Your task to perform on an android device: toggle airplane mode Image 0: 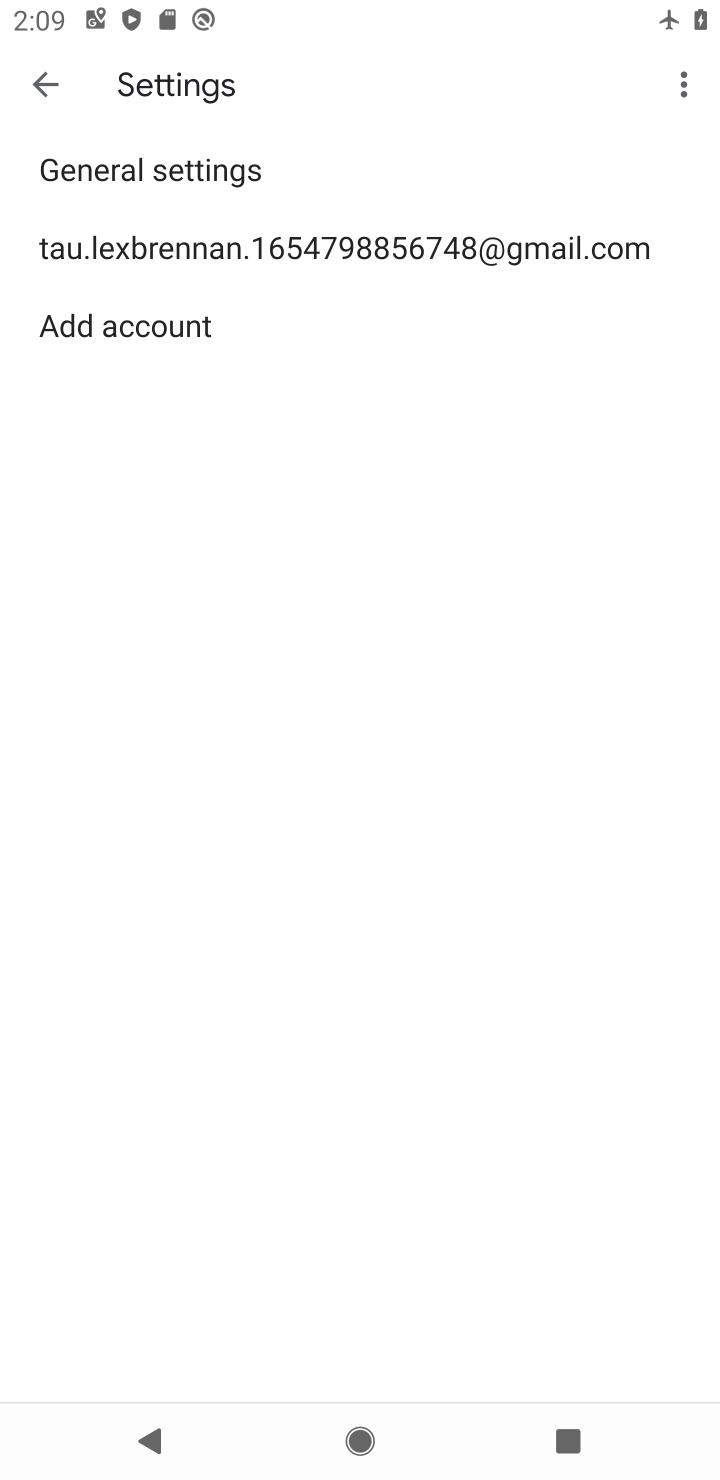
Step 0: press home button
Your task to perform on an android device: toggle airplane mode Image 1: 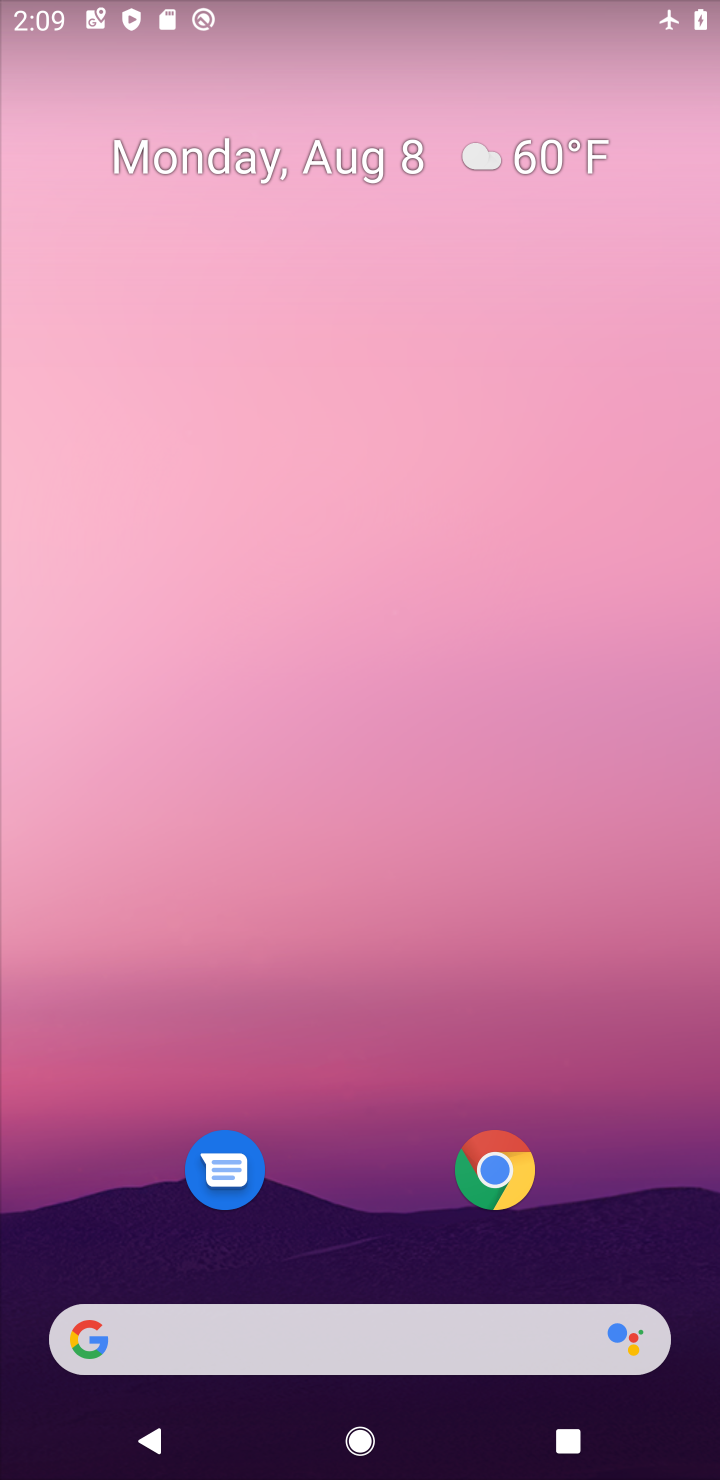
Step 1: click (337, 385)
Your task to perform on an android device: toggle airplane mode Image 2: 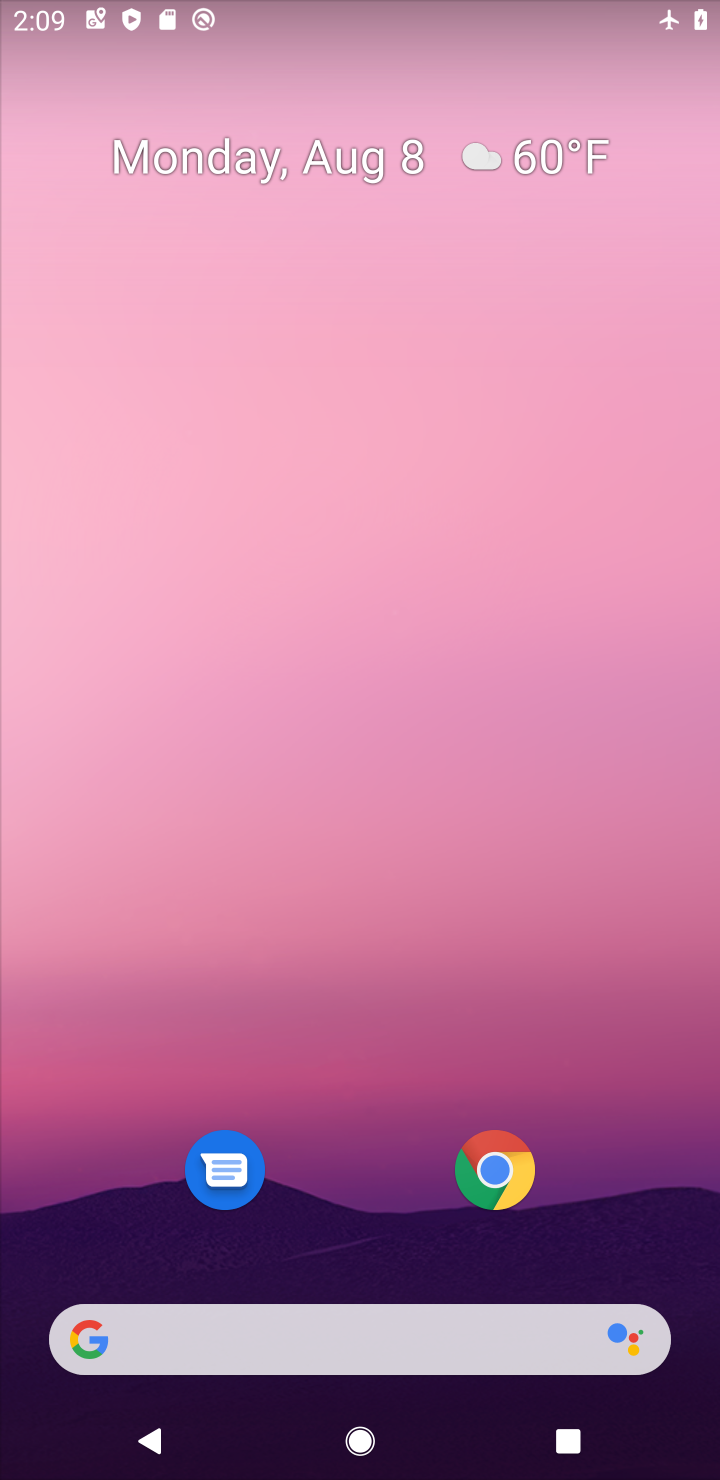
Step 2: drag from (338, 1019) to (388, 116)
Your task to perform on an android device: toggle airplane mode Image 3: 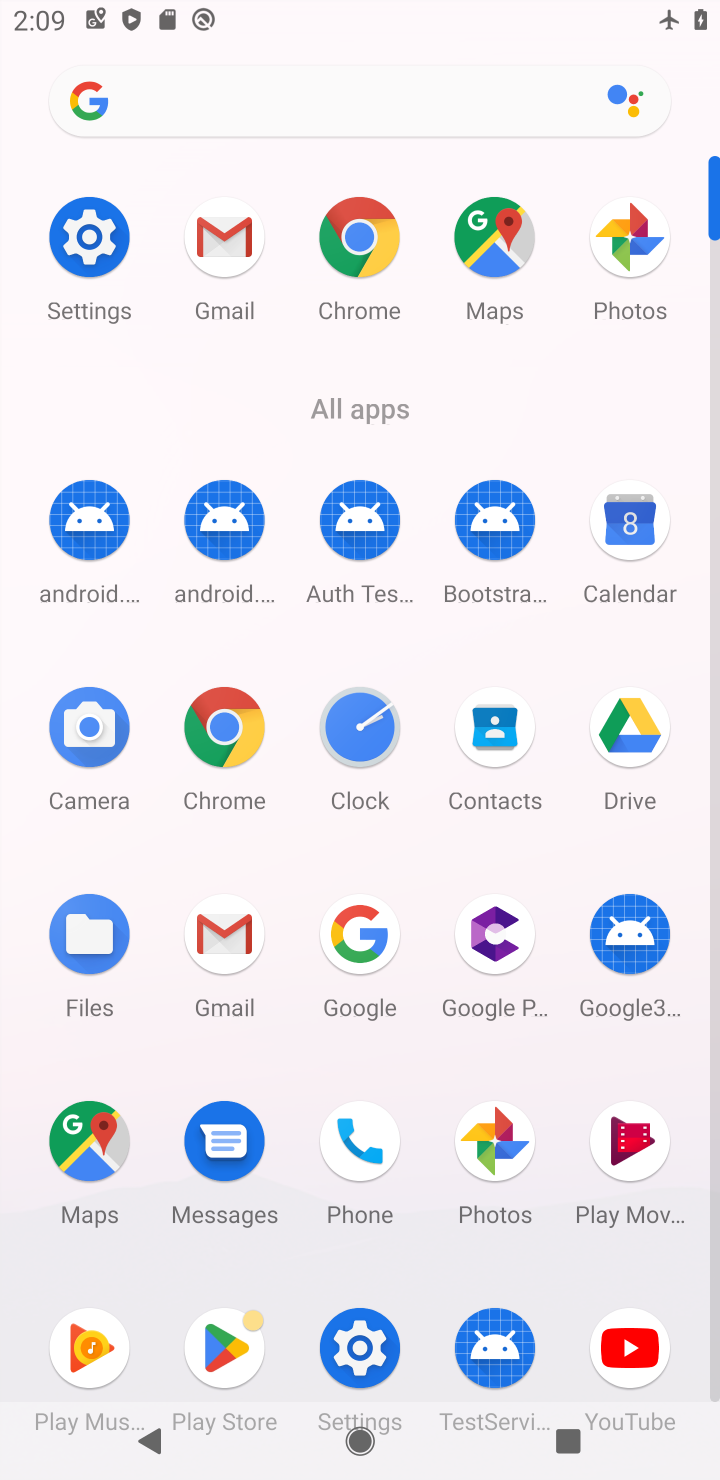
Step 3: click (85, 288)
Your task to perform on an android device: toggle airplane mode Image 4: 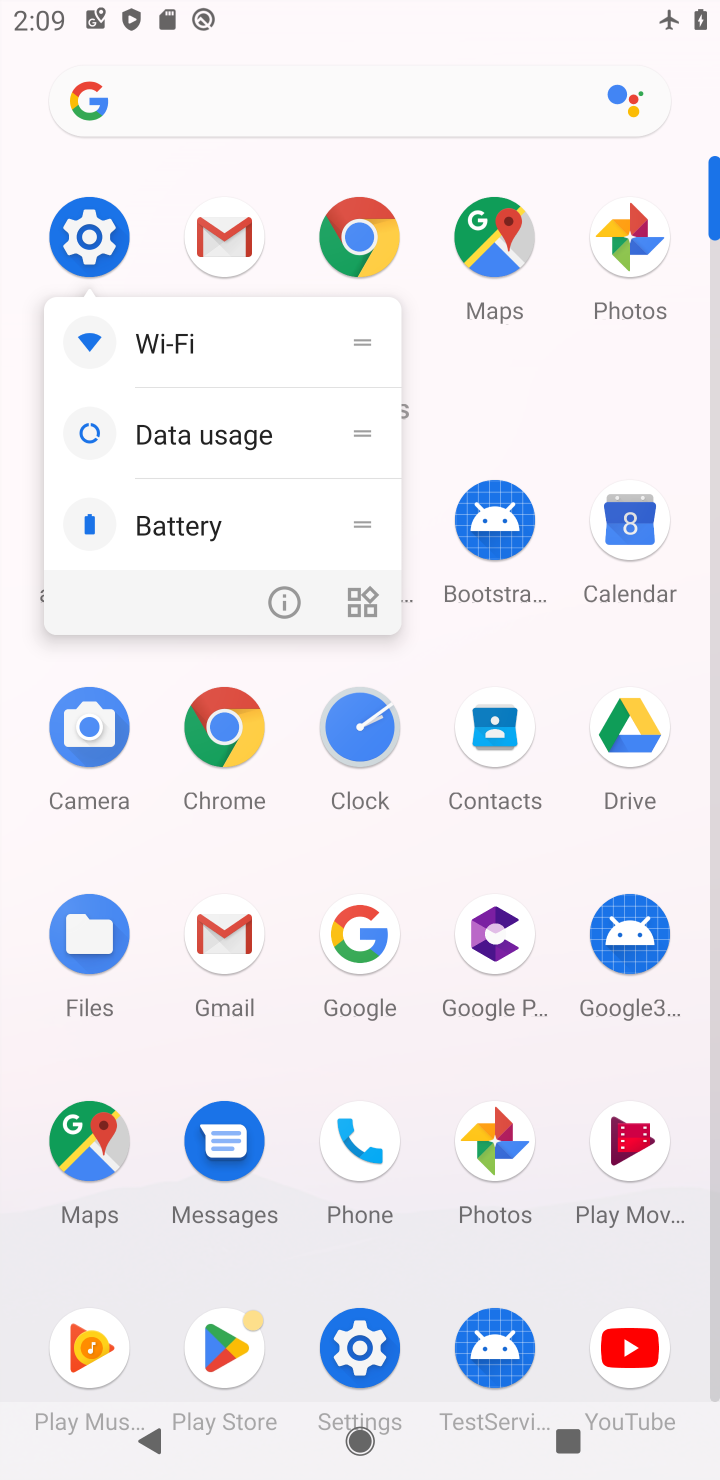
Step 4: click (102, 234)
Your task to perform on an android device: toggle airplane mode Image 5: 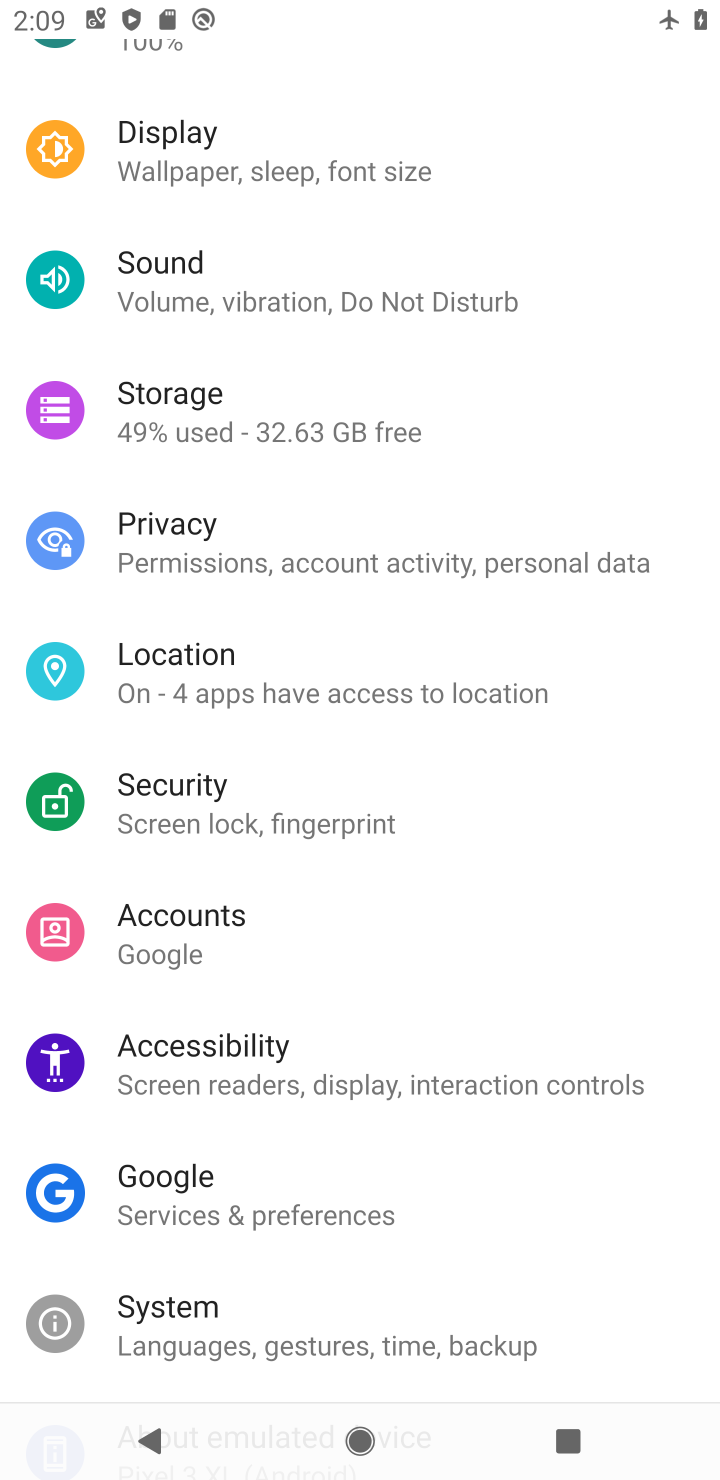
Step 5: drag from (341, 581) to (341, 732)
Your task to perform on an android device: toggle airplane mode Image 6: 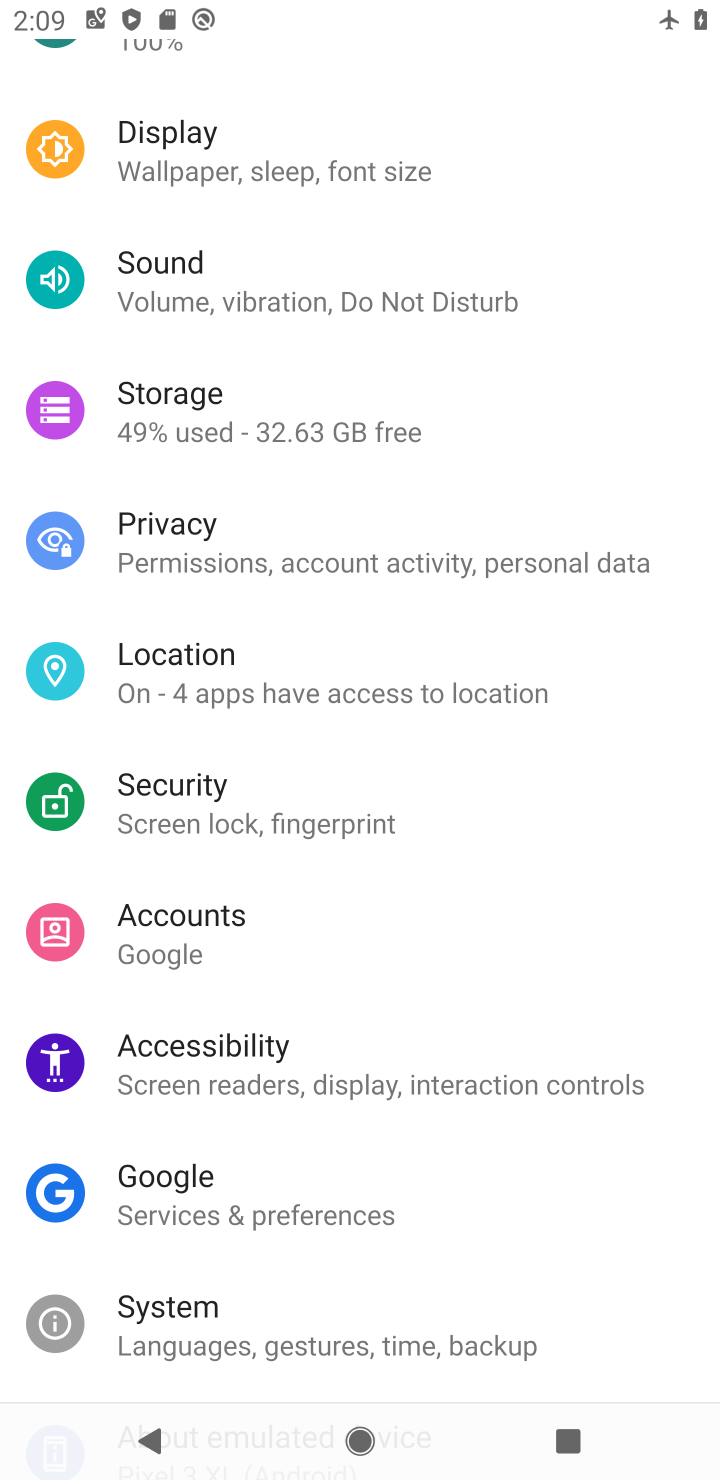
Step 6: drag from (357, 480) to (381, 947)
Your task to perform on an android device: toggle airplane mode Image 7: 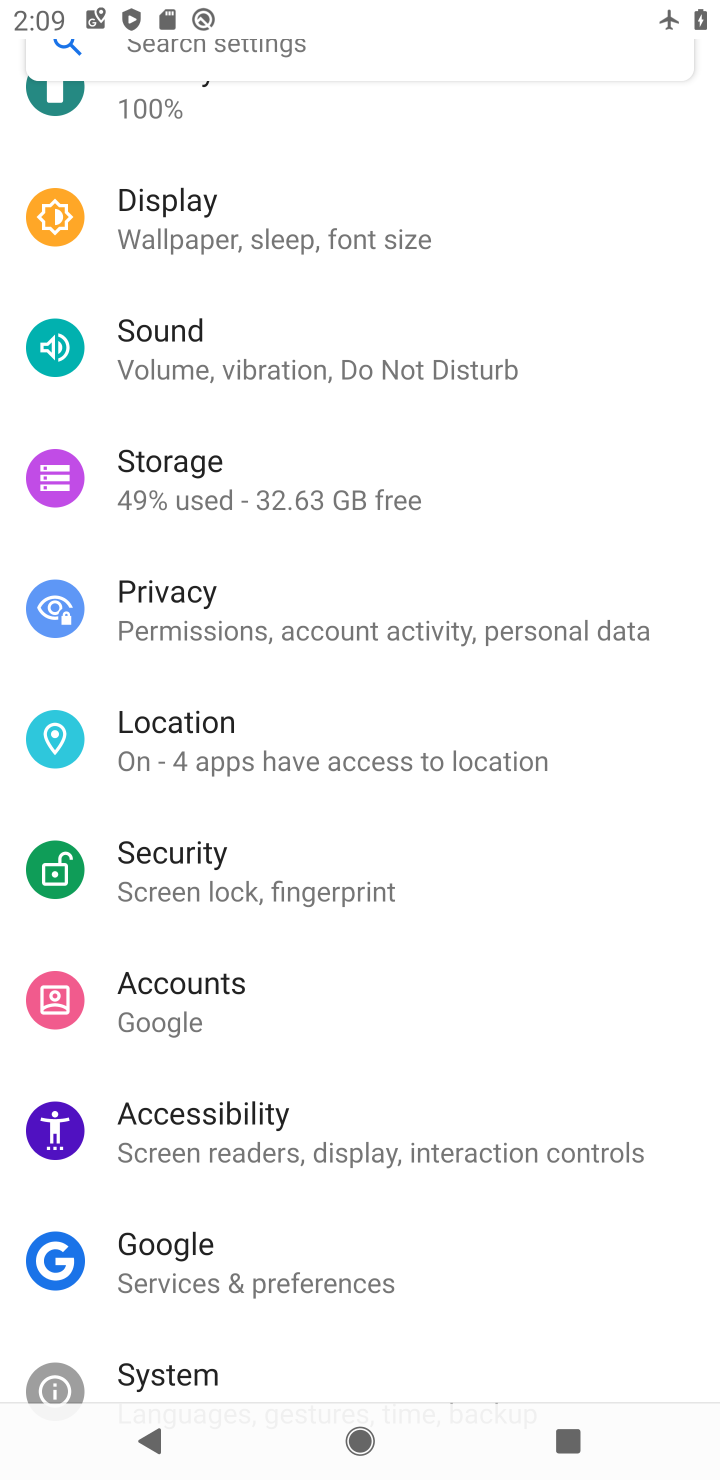
Step 7: drag from (315, 477) to (362, 917)
Your task to perform on an android device: toggle airplane mode Image 8: 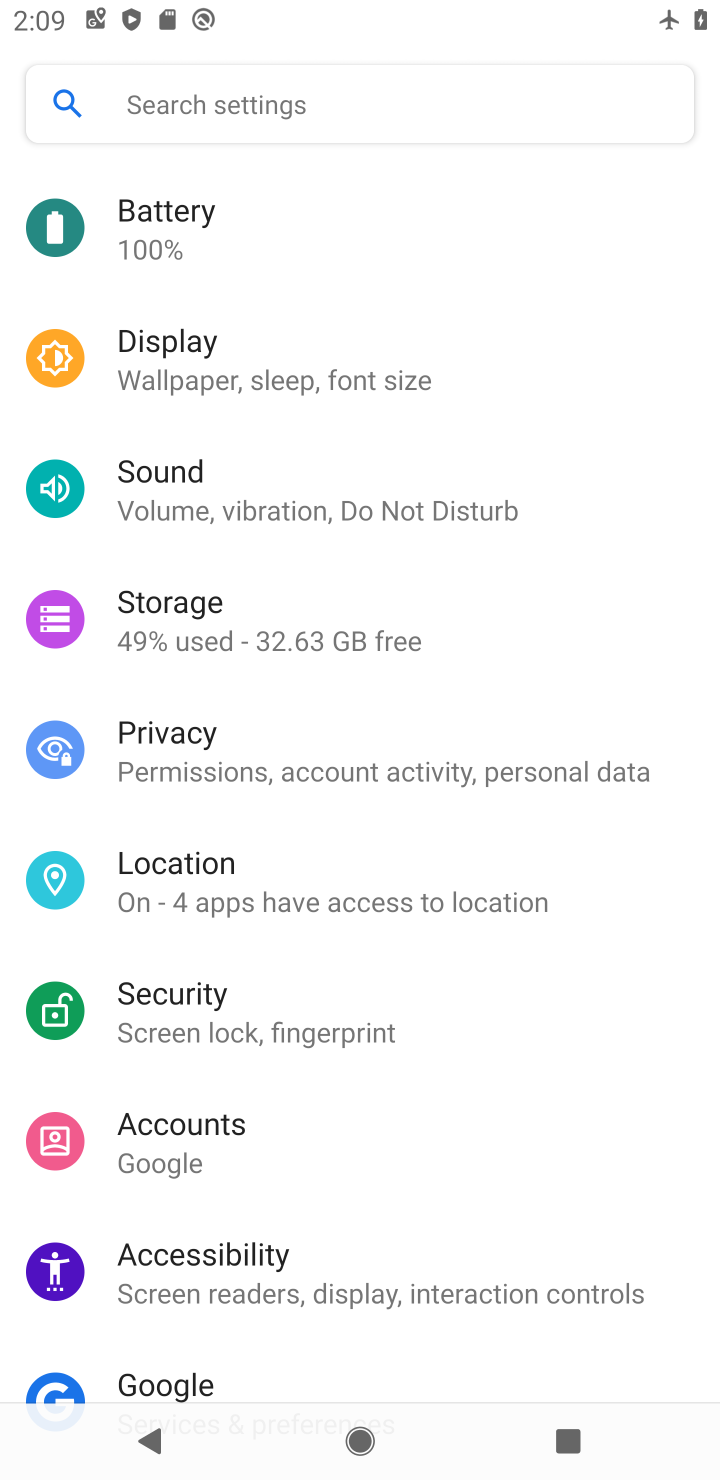
Step 8: drag from (301, 464) to (373, 1000)
Your task to perform on an android device: toggle airplane mode Image 9: 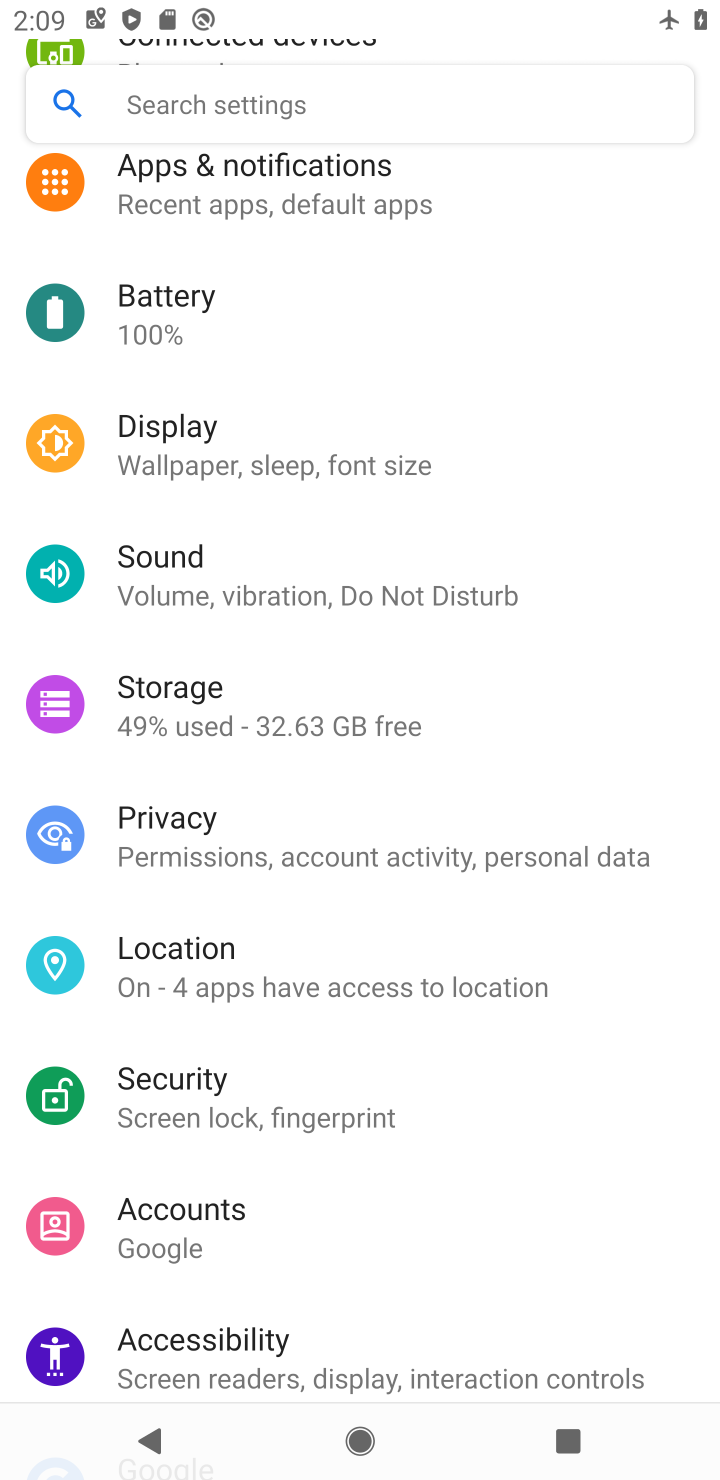
Step 9: drag from (314, 543) to (319, 1114)
Your task to perform on an android device: toggle airplane mode Image 10: 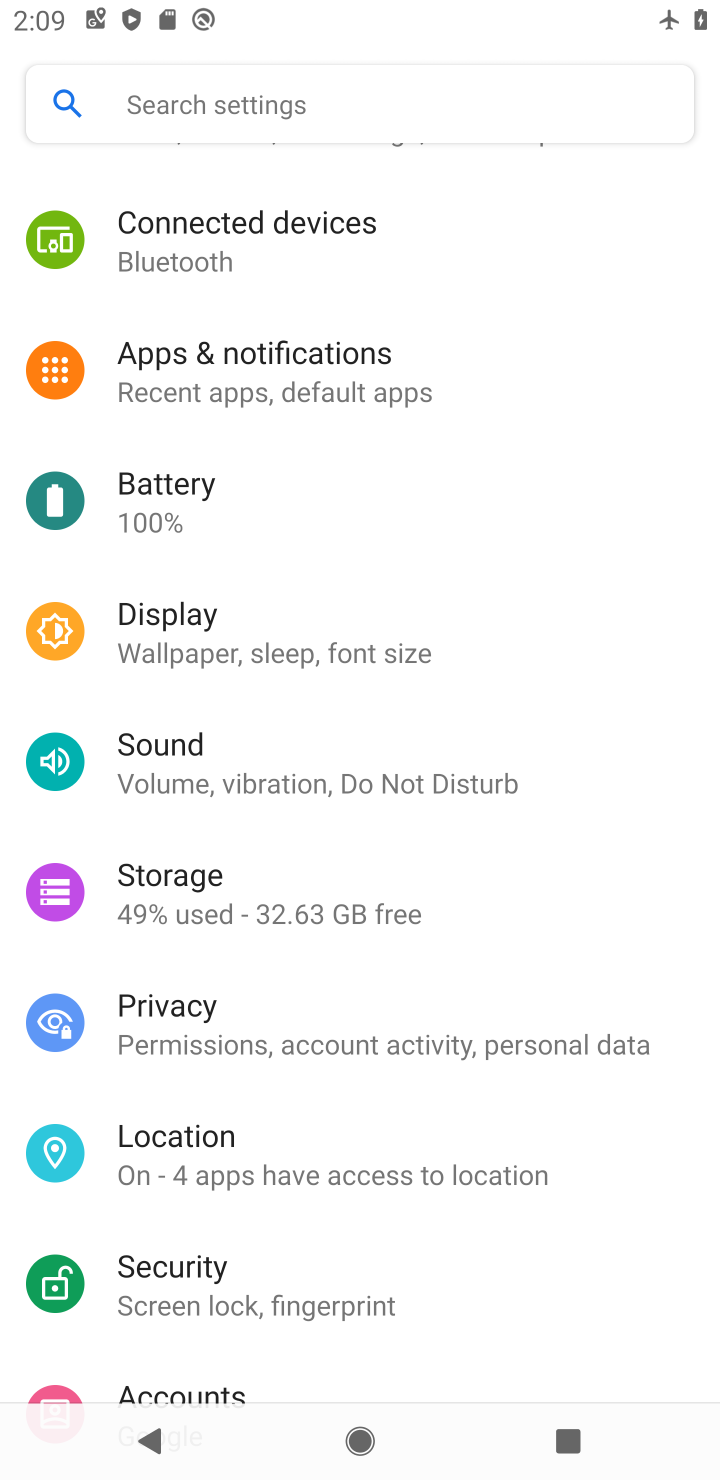
Step 10: drag from (288, 346) to (418, 1211)
Your task to perform on an android device: toggle airplane mode Image 11: 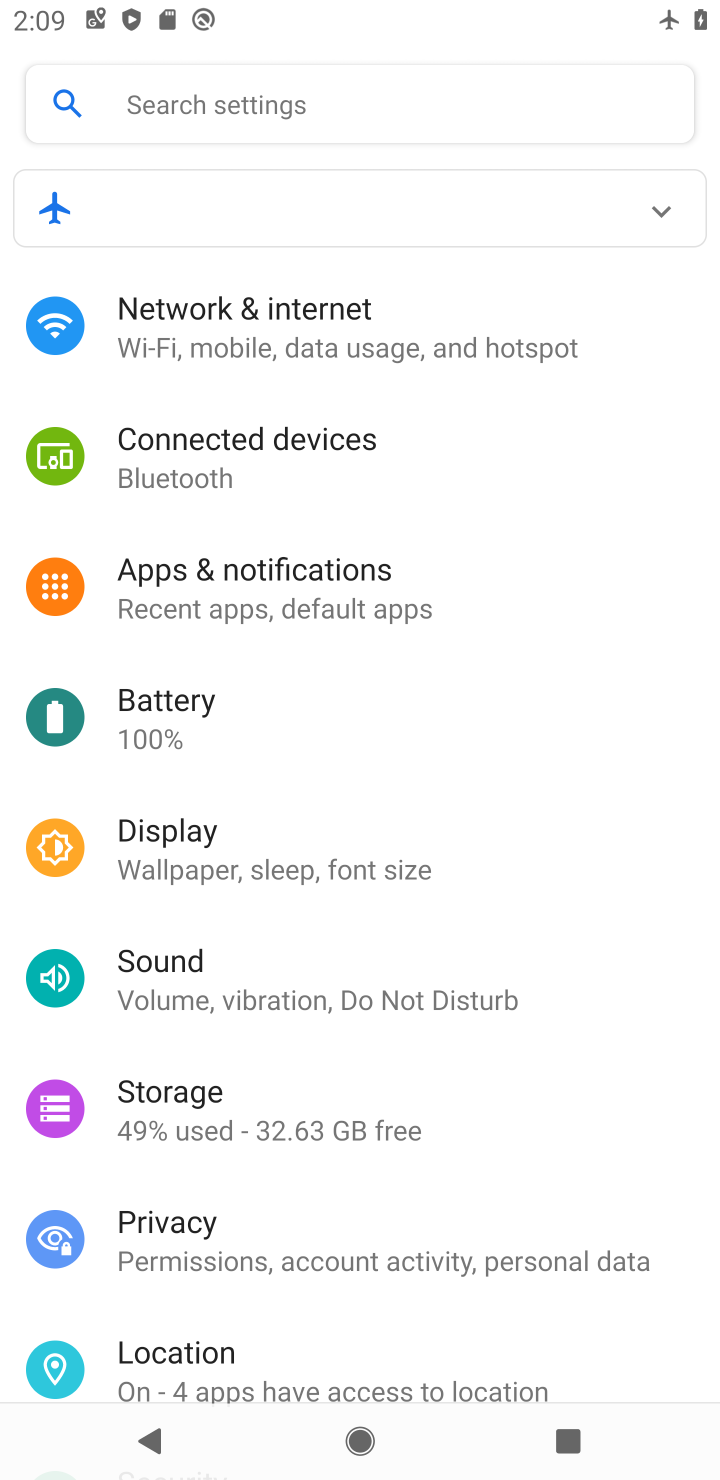
Step 11: click (288, 328)
Your task to perform on an android device: toggle airplane mode Image 12: 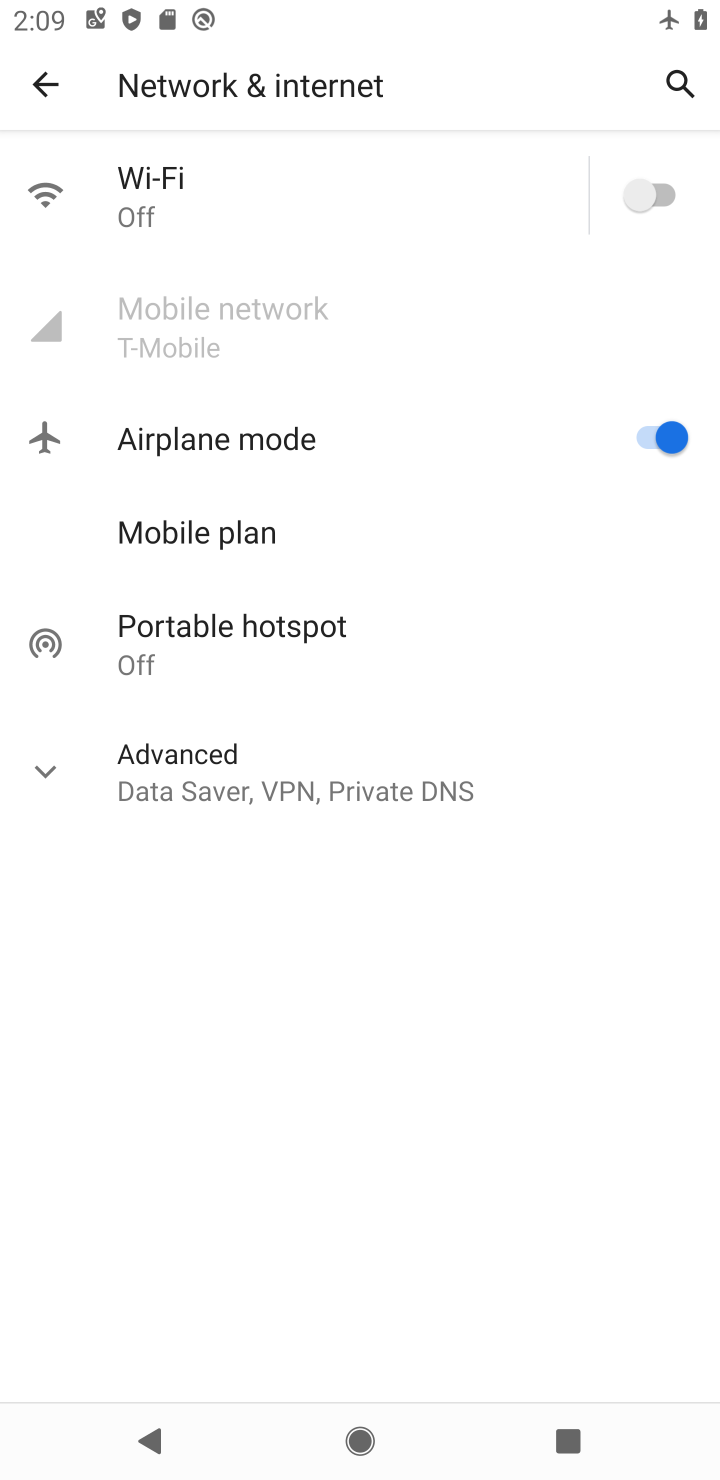
Step 12: click (648, 429)
Your task to perform on an android device: toggle airplane mode Image 13: 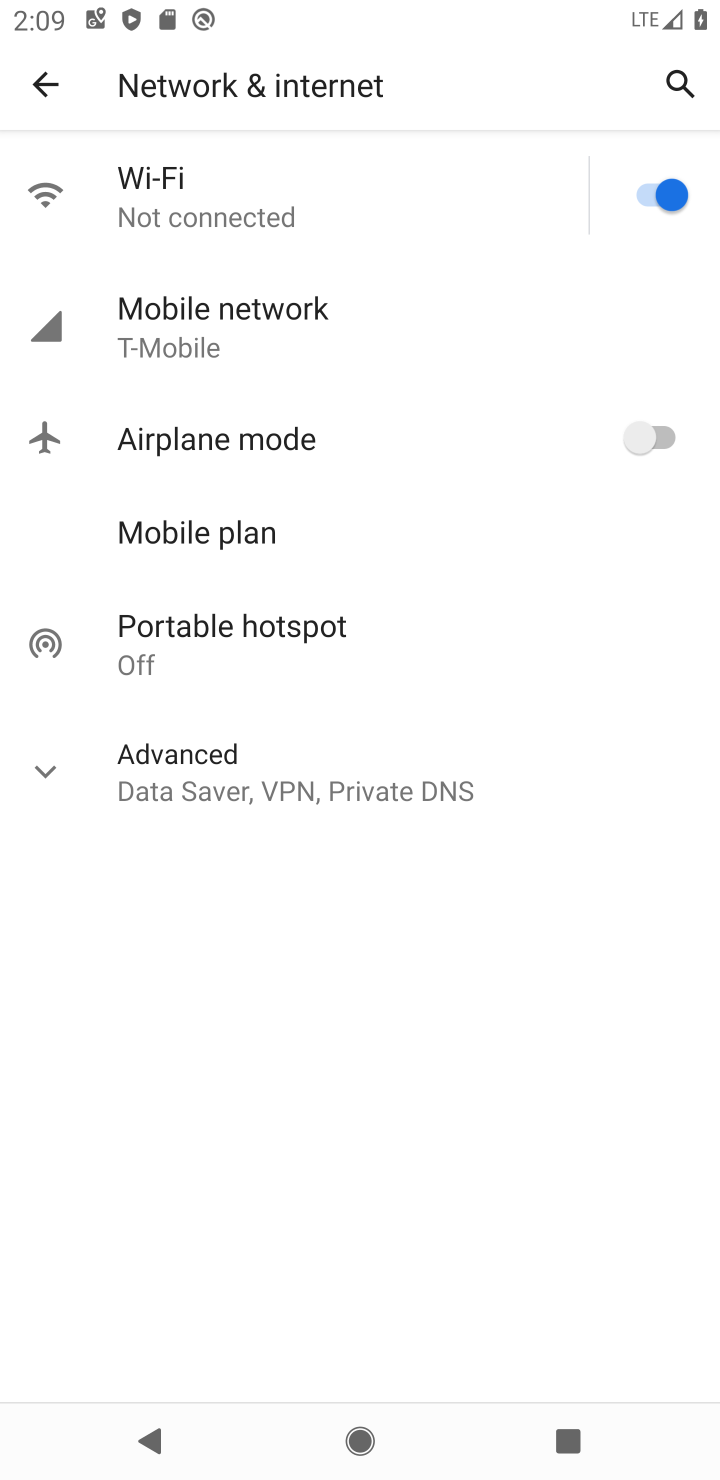
Step 13: task complete